Your task to perform on an android device: find photos in the google photos app Image 0: 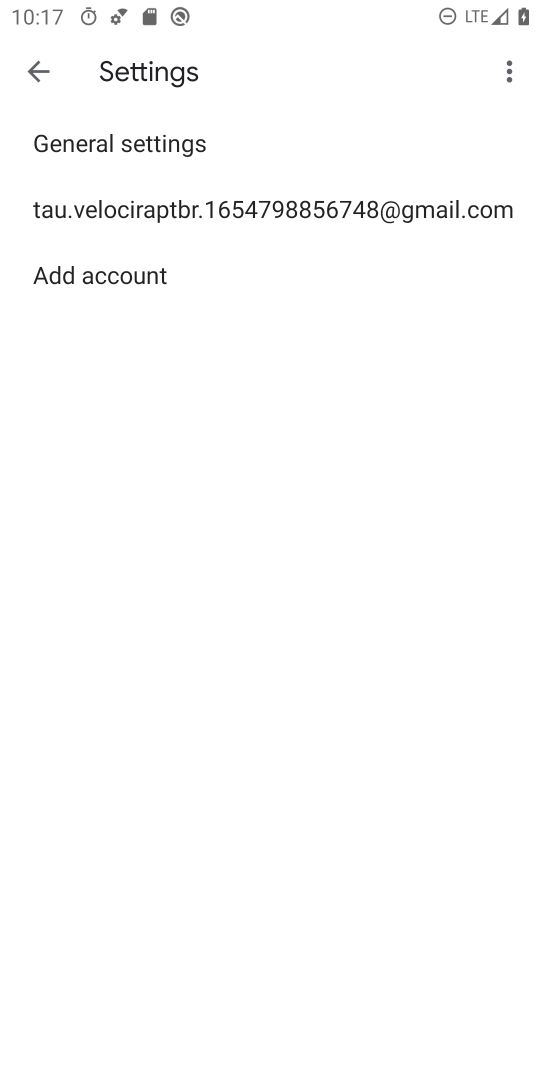
Step 0: press home button
Your task to perform on an android device: find photos in the google photos app Image 1: 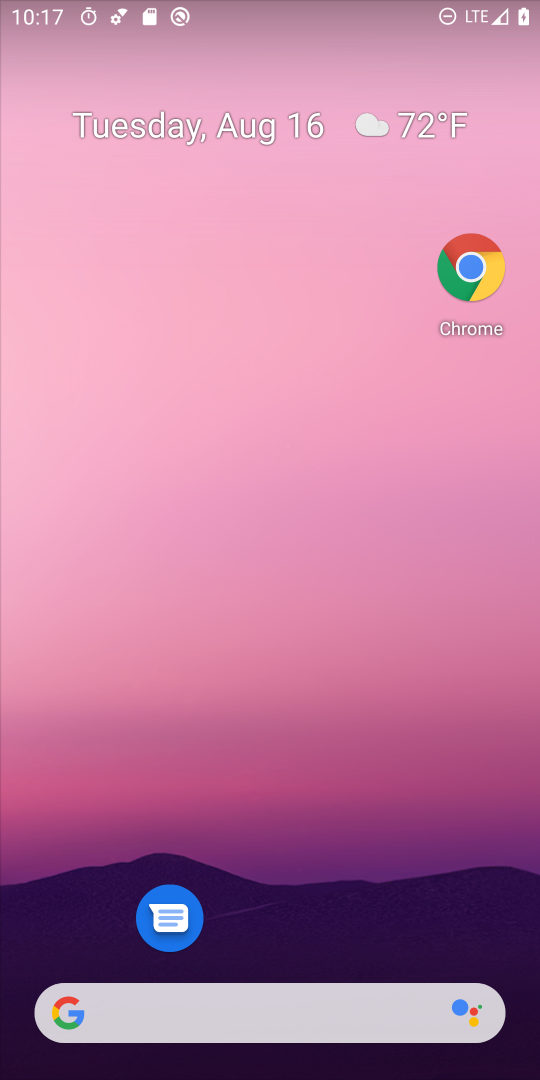
Step 1: drag from (317, 905) to (242, 265)
Your task to perform on an android device: find photos in the google photos app Image 2: 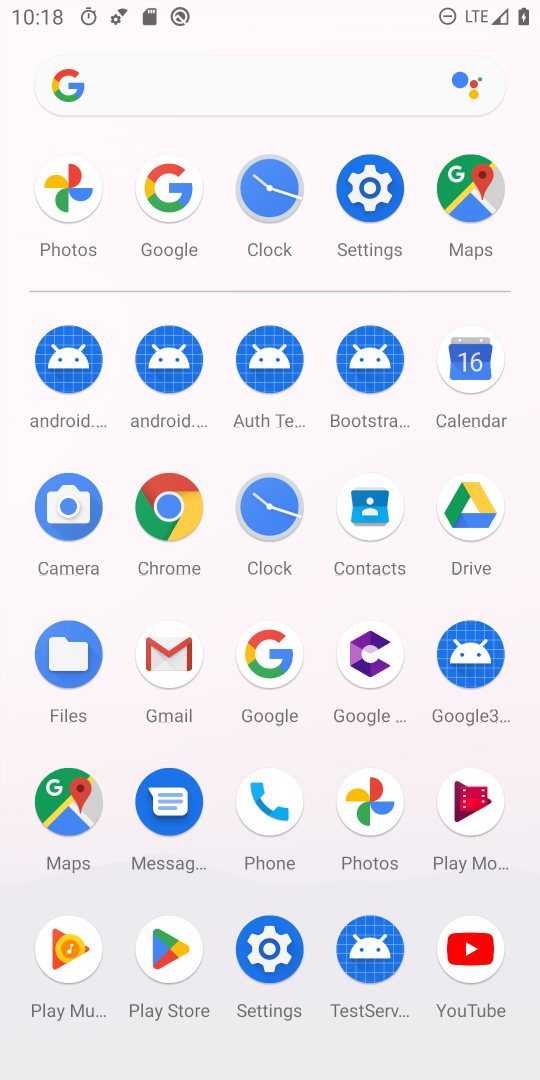
Step 2: click (367, 807)
Your task to perform on an android device: find photos in the google photos app Image 3: 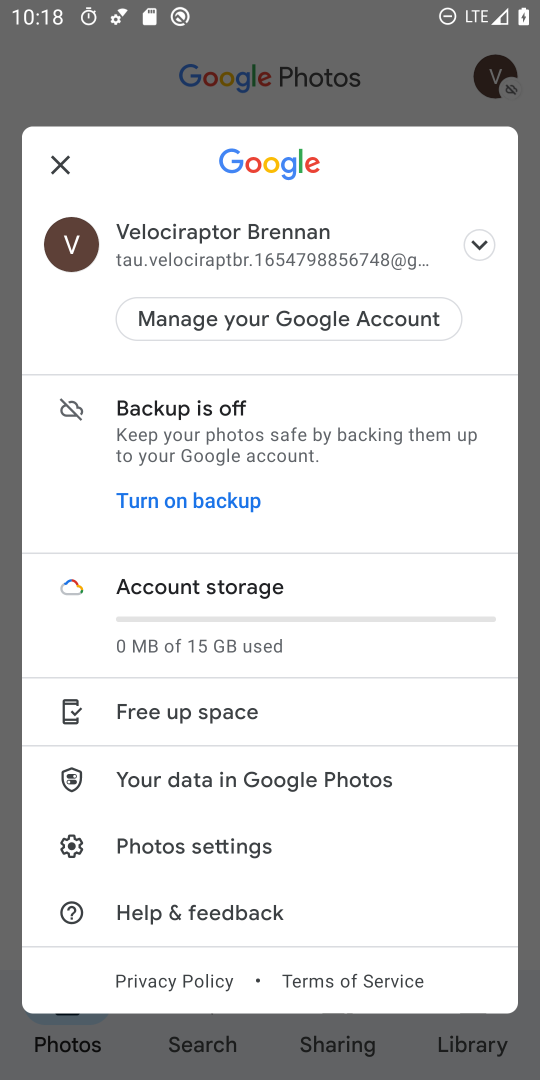
Step 3: click (57, 166)
Your task to perform on an android device: find photos in the google photos app Image 4: 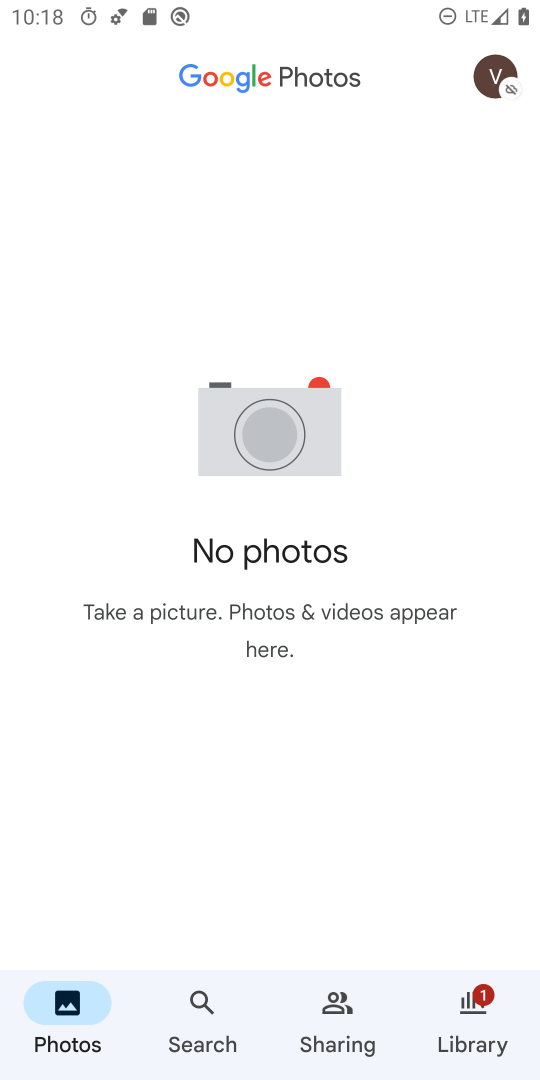
Step 4: task complete